Your task to perform on an android device: Open Yahoo.com Image 0: 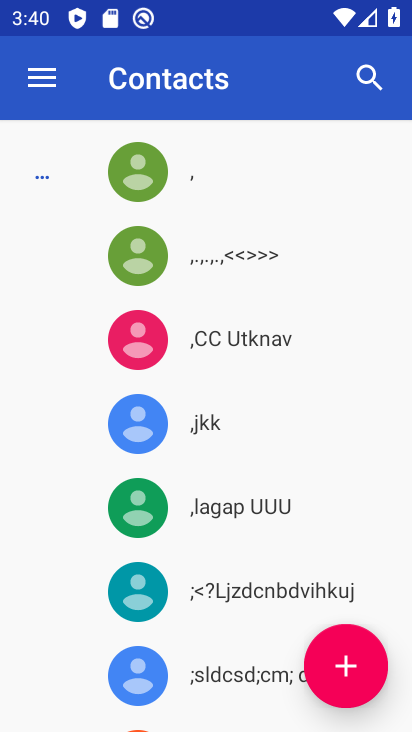
Step 0: press home button
Your task to perform on an android device: Open Yahoo.com Image 1: 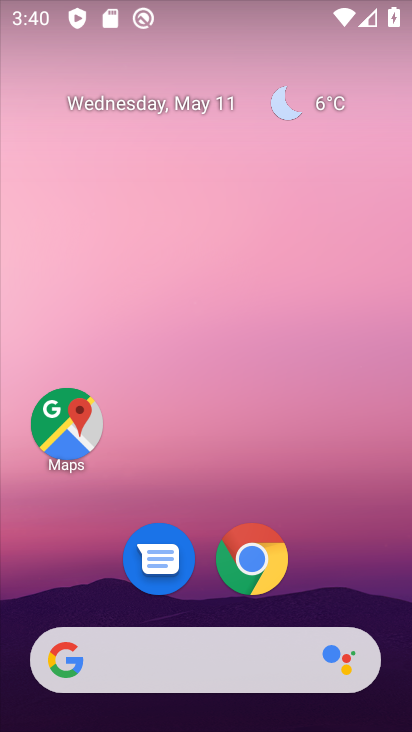
Step 1: click (236, 581)
Your task to perform on an android device: Open Yahoo.com Image 2: 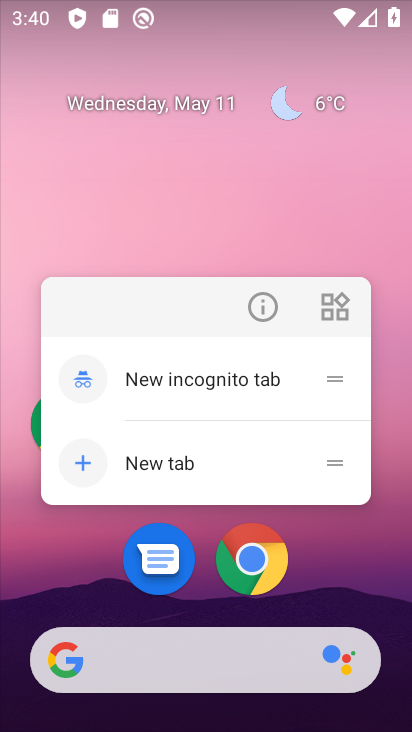
Step 2: click (231, 584)
Your task to perform on an android device: Open Yahoo.com Image 3: 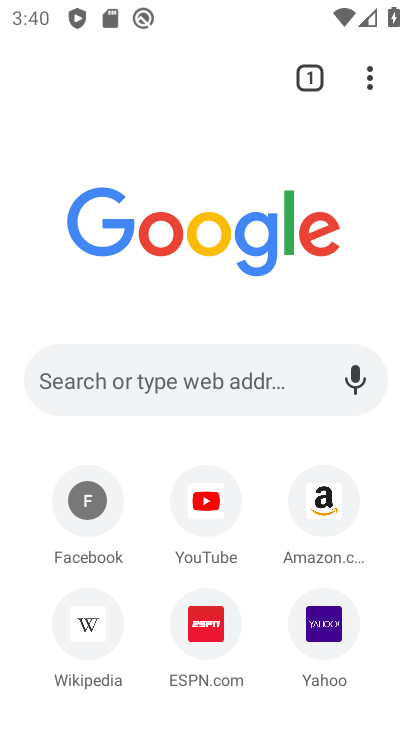
Step 3: click (337, 615)
Your task to perform on an android device: Open Yahoo.com Image 4: 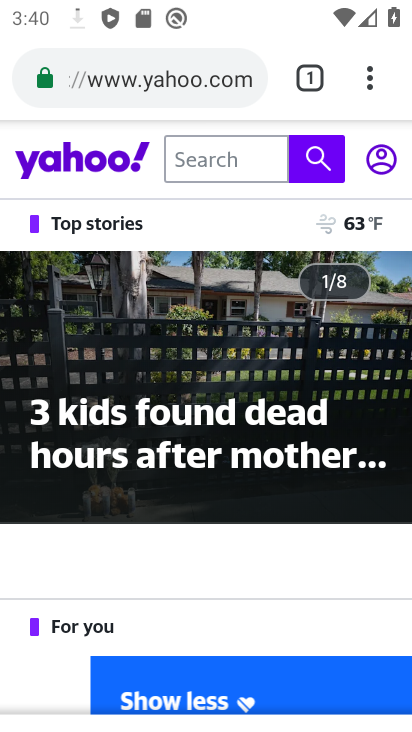
Step 4: task complete